Your task to perform on an android device: manage bookmarks in the chrome app Image 0: 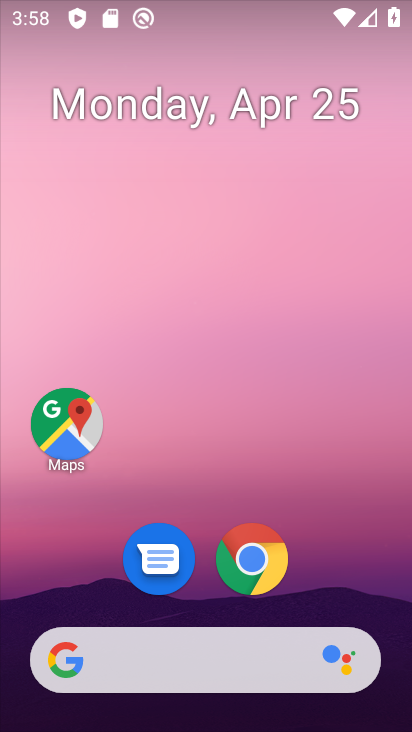
Step 0: press home button
Your task to perform on an android device: manage bookmarks in the chrome app Image 1: 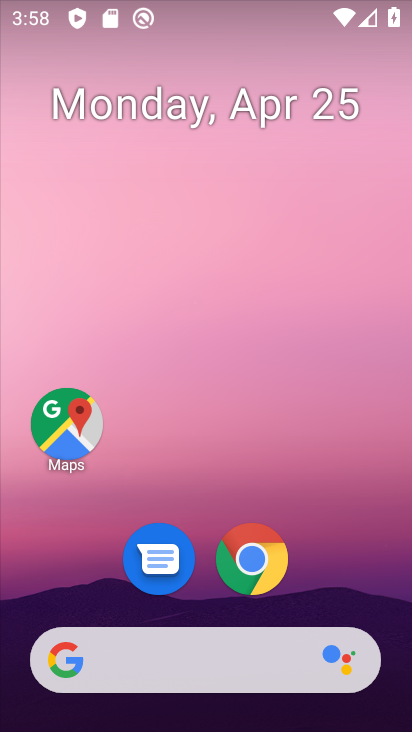
Step 1: click (251, 563)
Your task to perform on an android device: manage bookmarks in the chrome app Image 2: 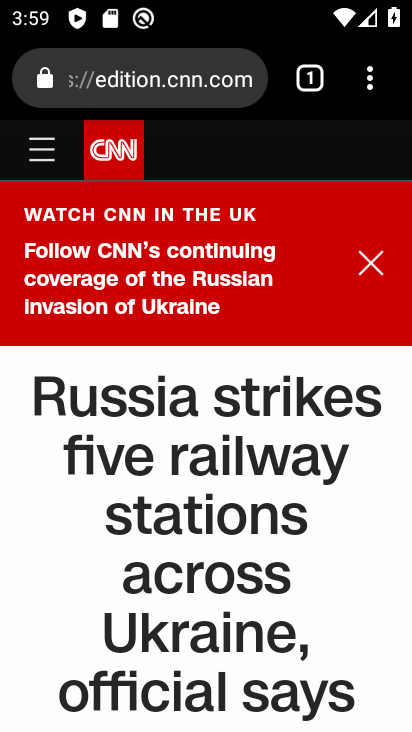
Step 2: click (373, 80)
Your task to perform on an android device: manage bookmarks in the chrome app Image 3: 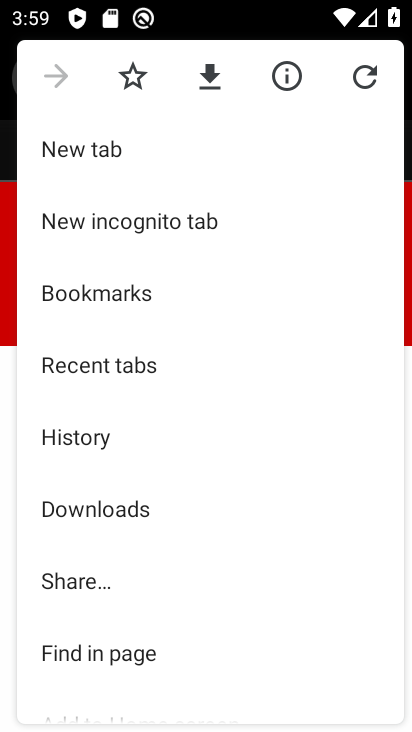
Step 3: click (104, 303)
Your task to perform on an android device: manage bookmarks in the chrome app Image 4: 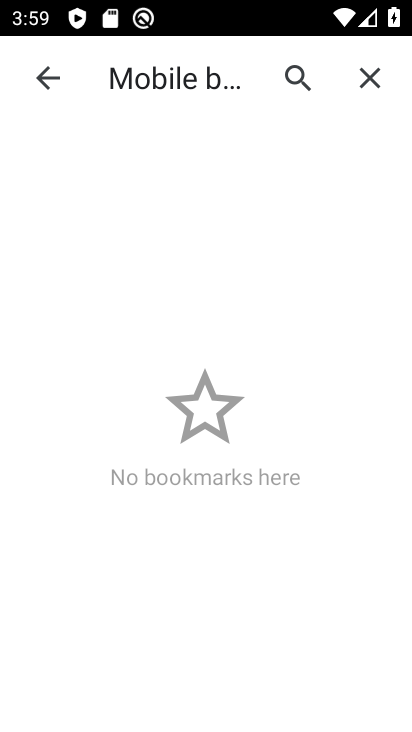
Step 4: task complete